Your task to perform on an android device: Show me productivity apps on the Play Store Image 0: 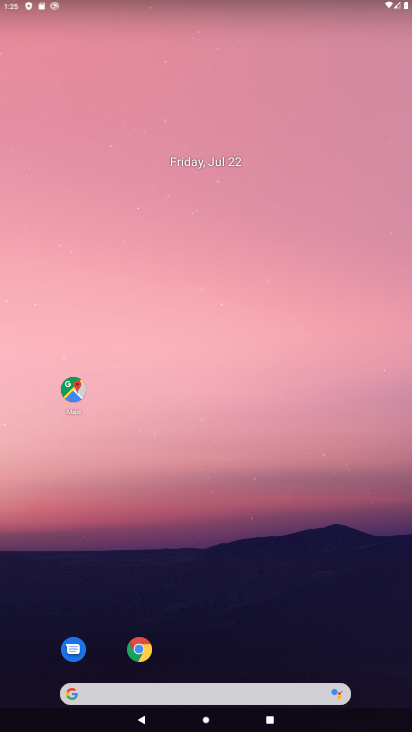
Step 0: drag from (310, 568) to (277, 98)
Your task to perform on an android device: Show me productivity apps on the Play Store Image 1: 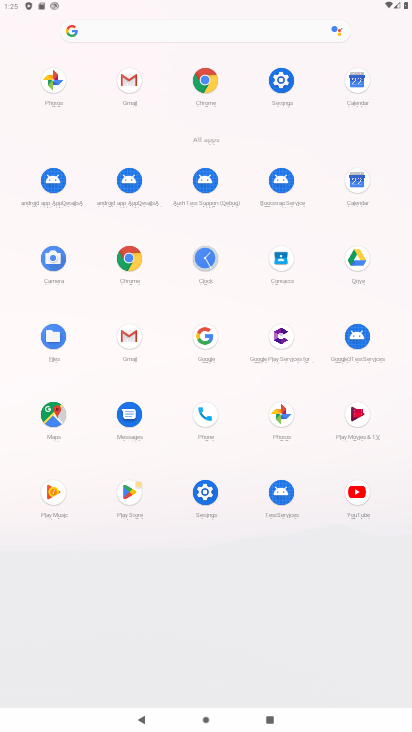
Step 1: click (131, 491)
Your task to perform on an android device: Show me productivity apps on the Play Store Image 2: 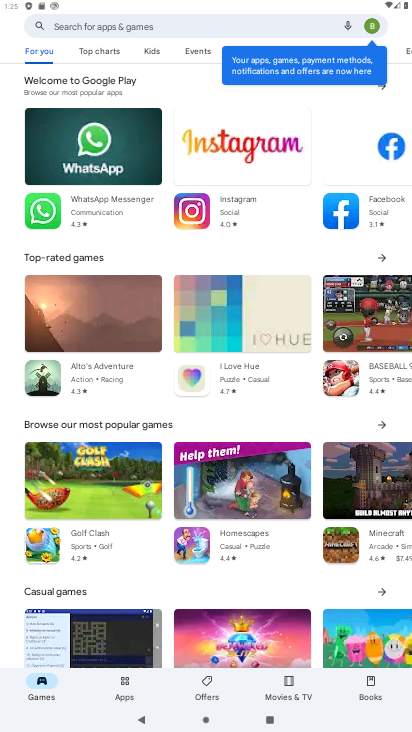
Step 2: click (131, 681)
Your task to perform on an android device: Show me productivity apps on the Play Store Image 3: 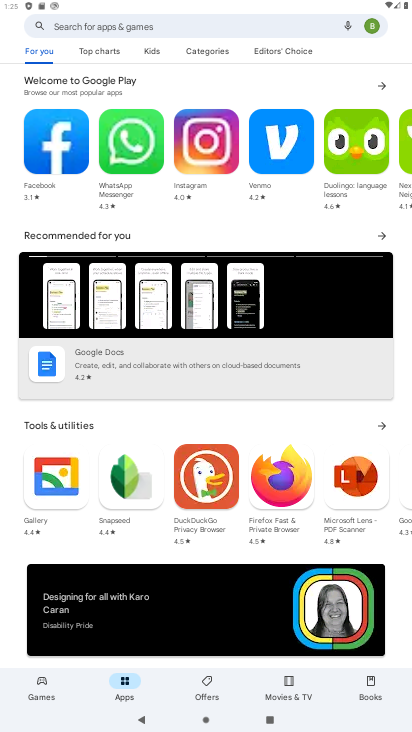
Step 3: click (192, 48)
Your task to perform on an android device: Show me productivity apps on the Play Store Image 4: 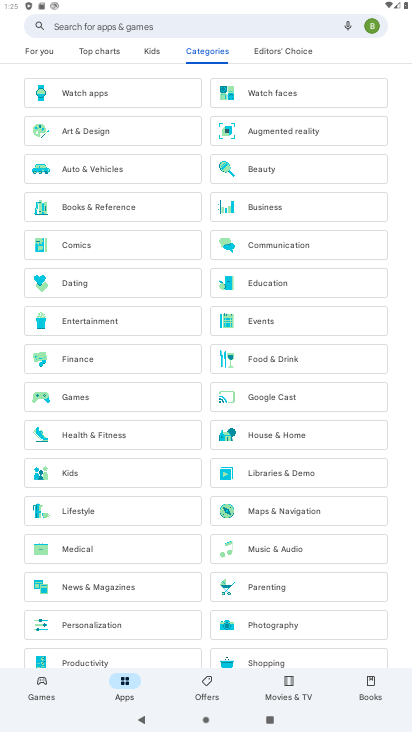
Step 4: click (119, 658)
Your task to perform on an android device: Show me productivity apps on the Play Store Image 5: 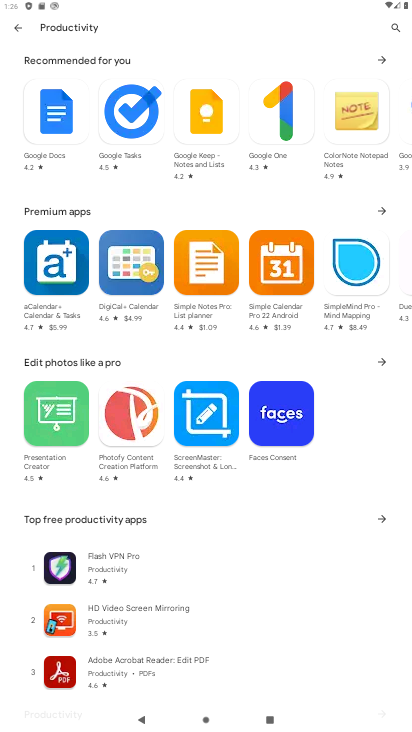
Step 5: task complete